Your task to perform on an android device: check data usage Image 0: 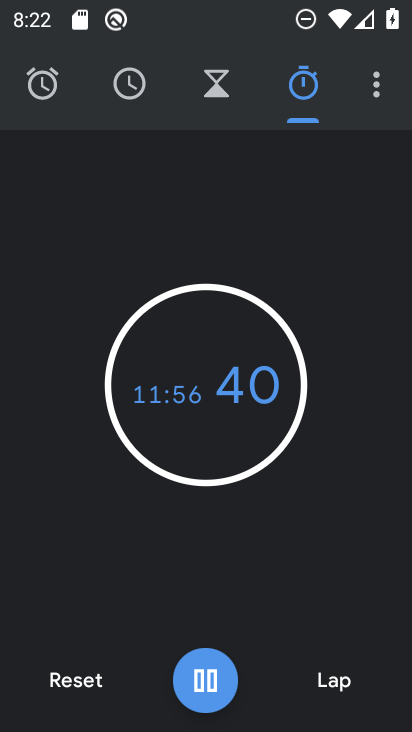
Step 0: press home button
Your task to perform on an android device: check data usage Image 1: 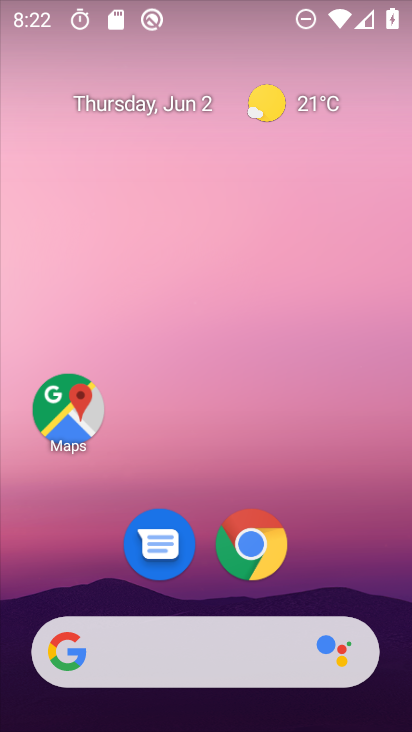
Step 1: drag from (345, 577) to (342, 124)
Your task to perform on an android device: check data usage Image 2: 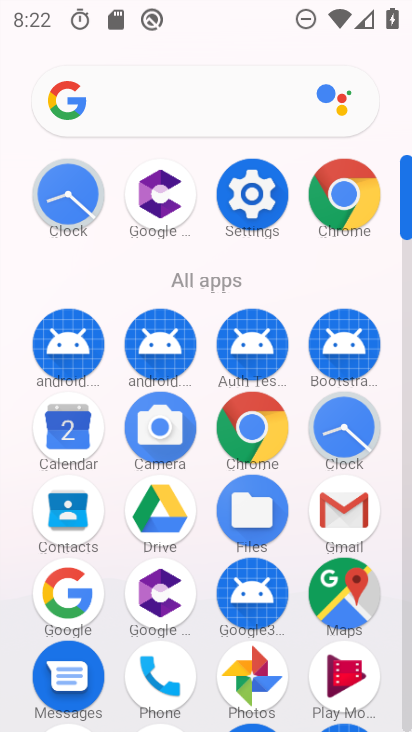
Step 2: click (261, 203)
Your task to perform on an android device: check data usage Image 3: 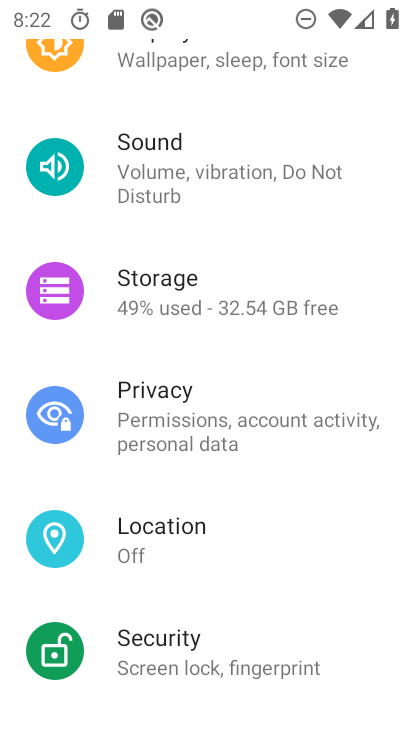
Step 3: drag from (235, 167) to (271, 651)
Your task to perform on an android device: check data usage Image 4: 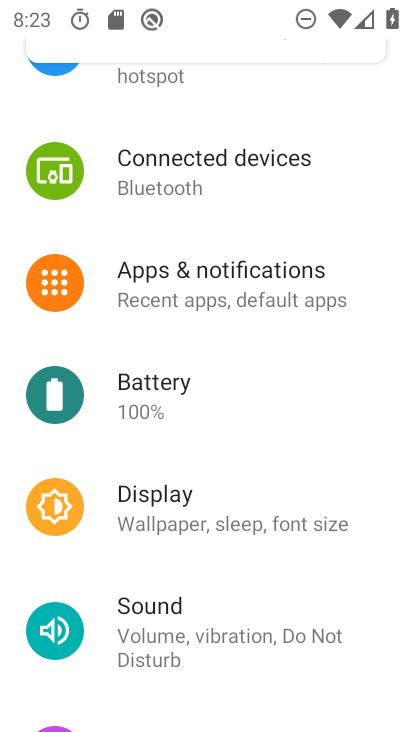
Step 4: drag from (213, 206) to (194, 655)
Your task to perform on an android device: check data usage Image 5: 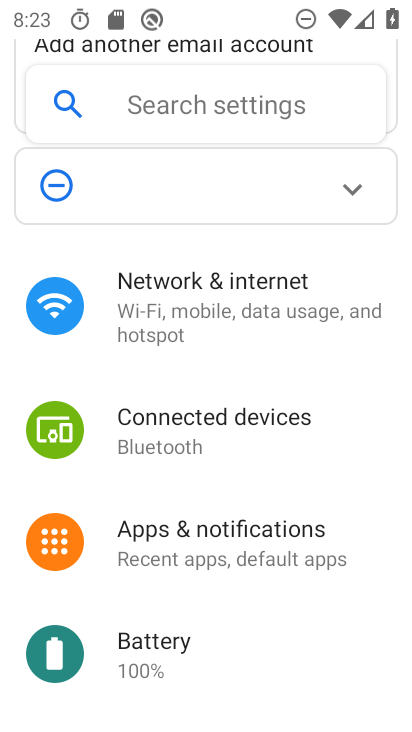
Step 5: click (203, 326)
Your task to perform on an android device: check data usage Image 6: 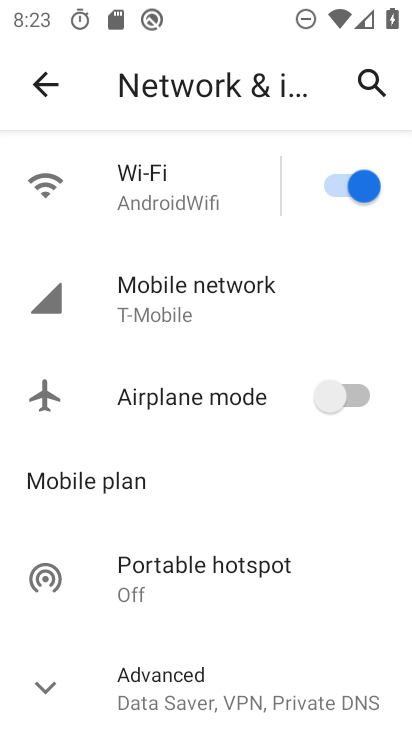
Step 6: click (179, 205)
Your task to perform on an android device: check data usage Image 7: 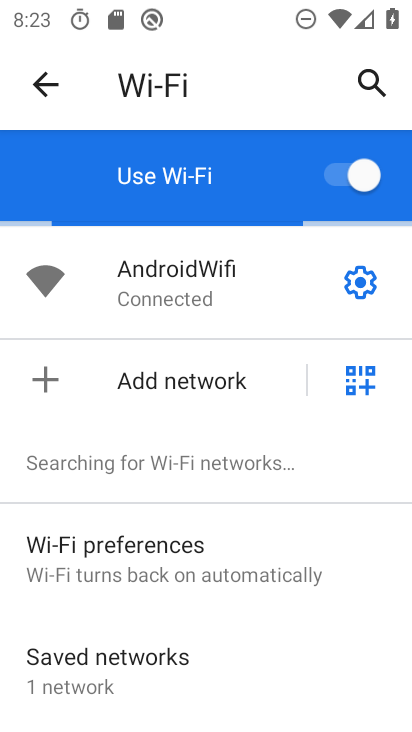
Step 7: drag from (222, 682) to (199, 335)
Your task to perform on an android device: check data usage Image 8: 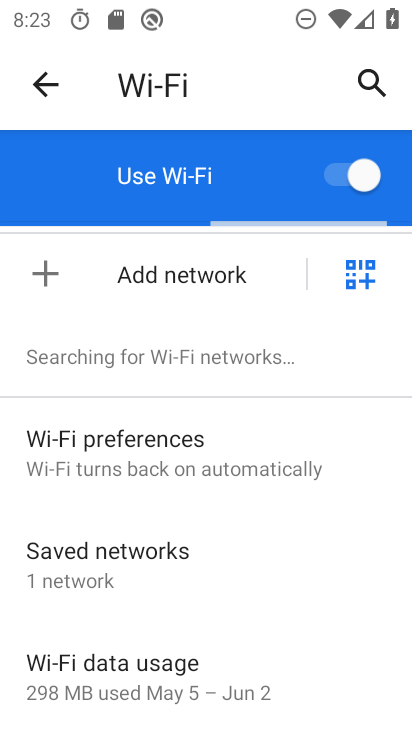
Step 8: click (180, 656)
Your task to perform on an android device: check data usage Image 9: 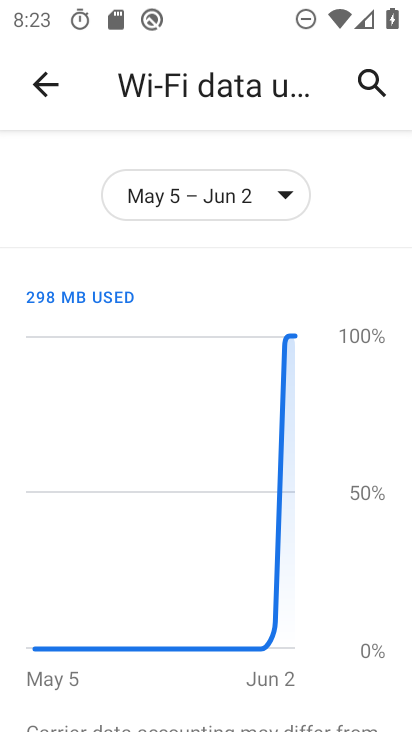
Step 9: task complete